Your task to perform on an android device: turn on translation in the chrome app Image 0: 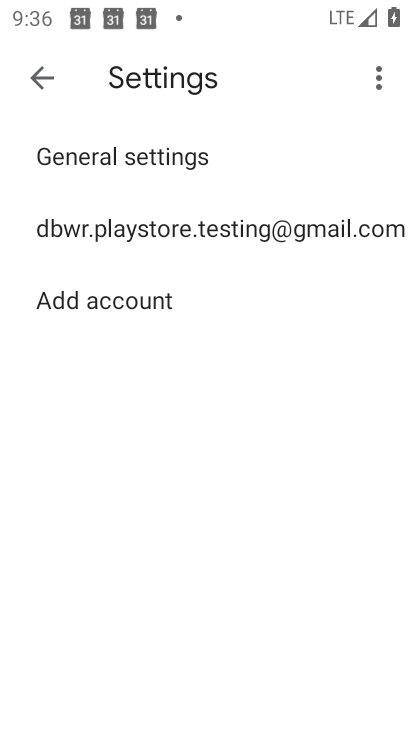
Step 0: press back button
Your task to perform on an android device: turn on translation in the chrome app Image 1: 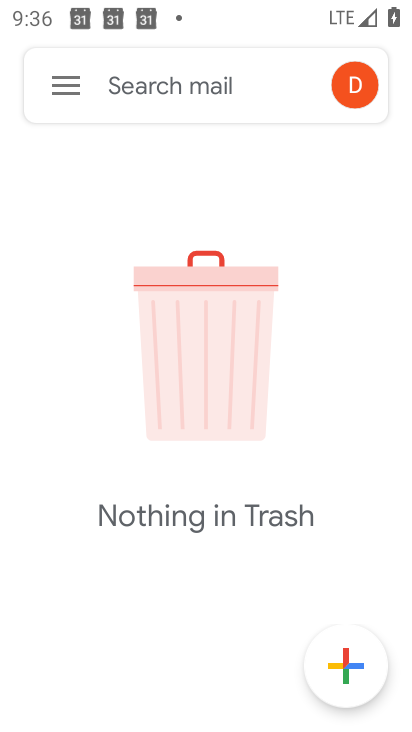
Step 1: press back button
Your task to perform on an android device: turn on translation in the chrome app Image 2: 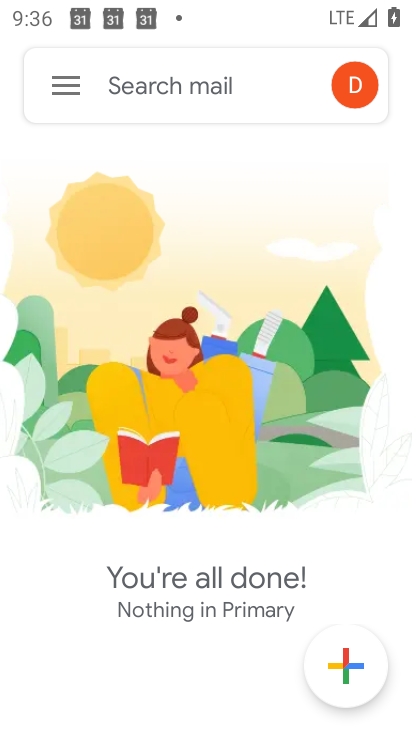
Step 2: press back button
Your task to perform on an android device: turn on translation in the chrome app Image 3: 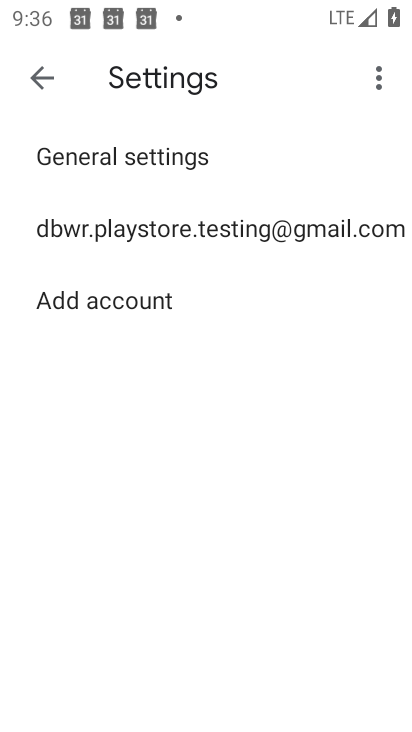
Step 3: press back button
Your task to perform on an android device: turn on translation in the chrome app Image 4: 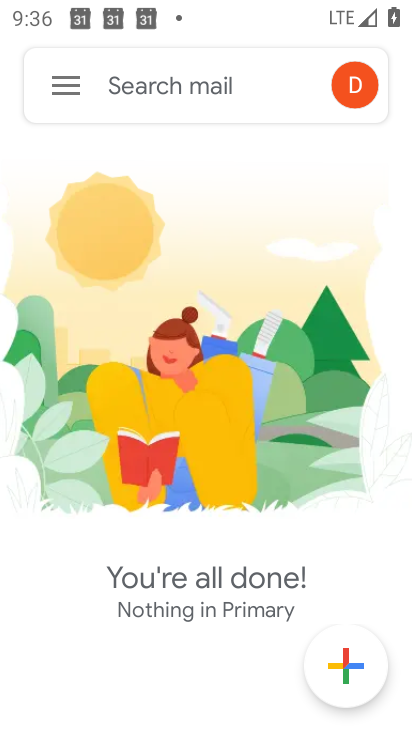
Step 4: press back button
Your task to perform on an android device: turn on translation in the chrome app Image 5: 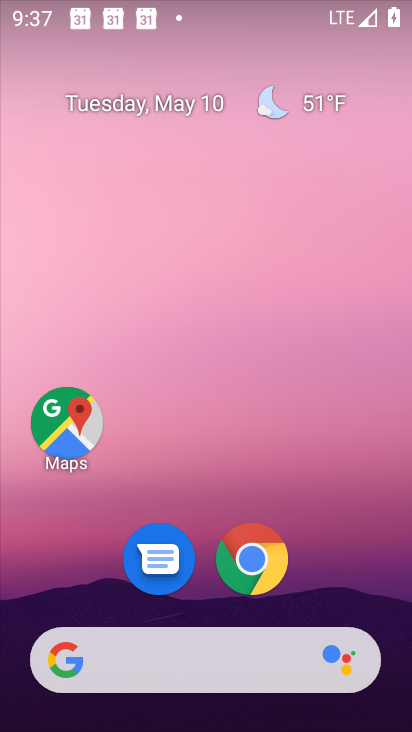
Step 5: click (253, 559)
Your task to perform on an android device: turn on translation in the chrome app Image 6: 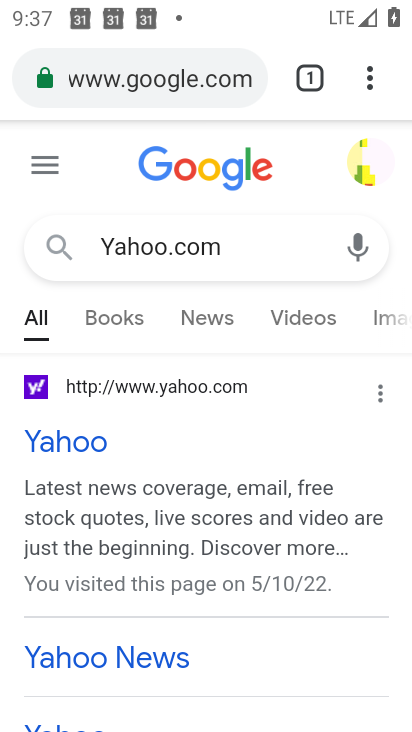
Step 6: click (370, 77)
Your task to perform on an android device: turn on translation in the chrome app Image 7: 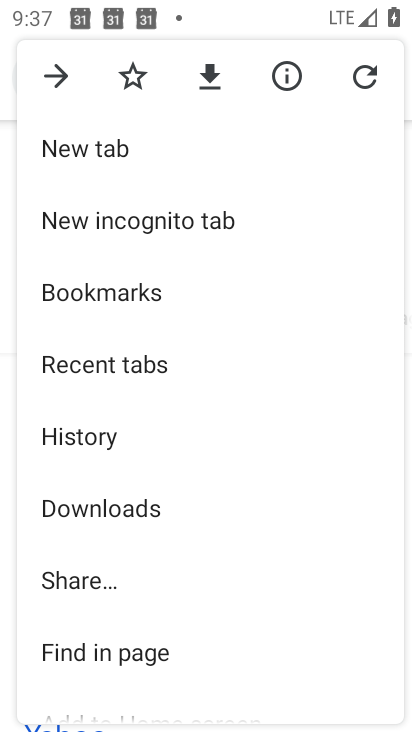
Step 7: drag from (167, 461) to (217, 334)
Your task to perform on an android device: turn on translation in the chrome app Image 8: 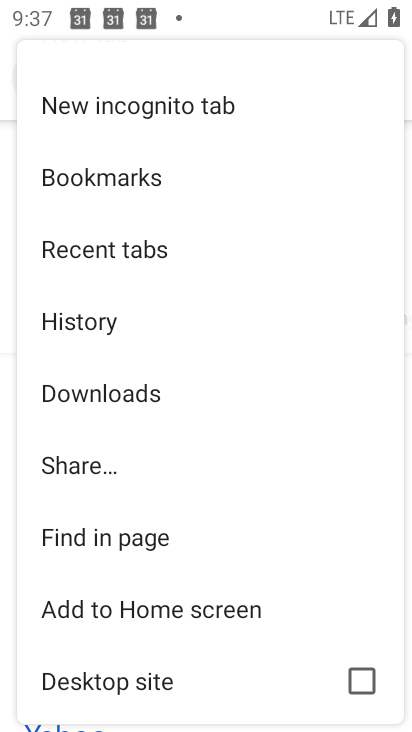
Step 8: drag from (190, 509) to (251, 380)
Your task to perform on an android device: turn on translation in the chrome app Image 9: 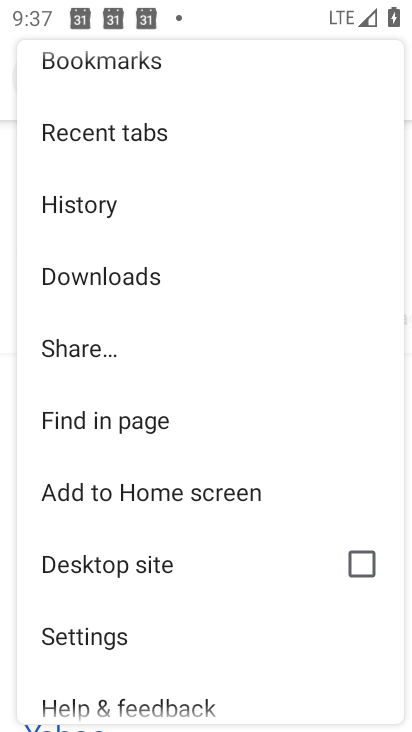
Step 9: drag from (192, 529) to (258, 385)
Your task to perform on an android device: turn on translation in the chrome app Image 10: 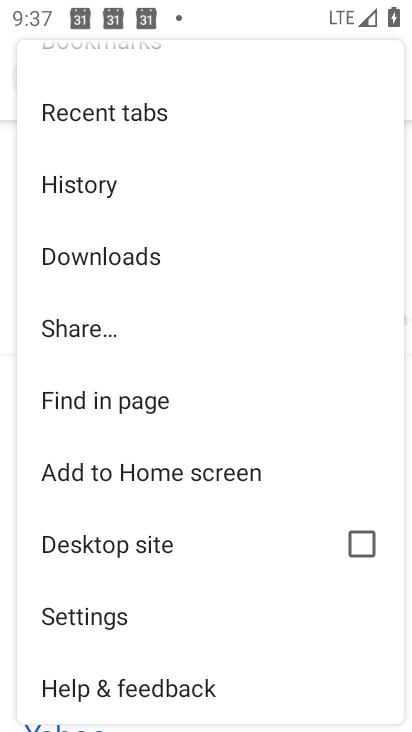
Step 10: click (122, 617)
Your task to perform on an android device: turn on translation in the chrome app Image 11: 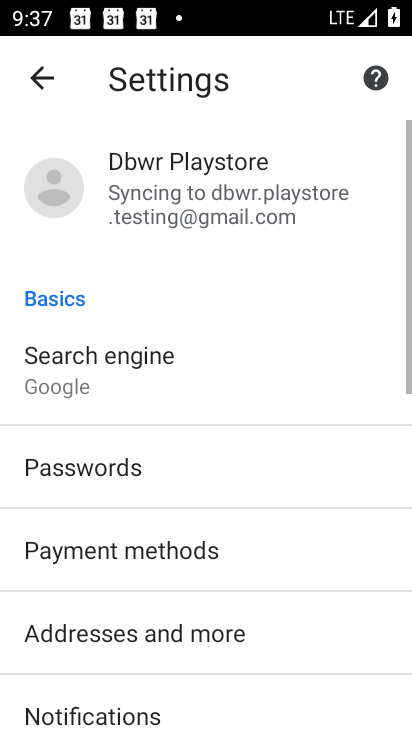
Step 11: drag from (201, 574) to (275, 431)
Your task to perform on an android device: turn on translation in the chrome app Image 12: 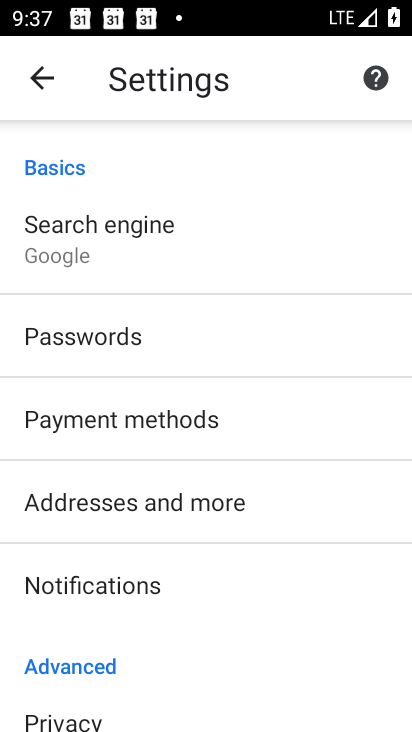
Step 12: drag from (214, 576) to (267, 444)
Your task to perform on an android device: turn on translation in the chrome app Image 13: 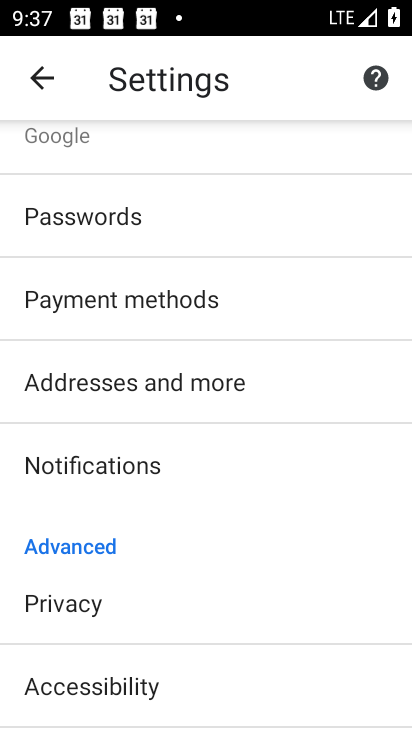
Step 13: drag from (195, 611) to (233, 489)
Your task to perform on an android device: turn on translation in the chrome app Image 14: 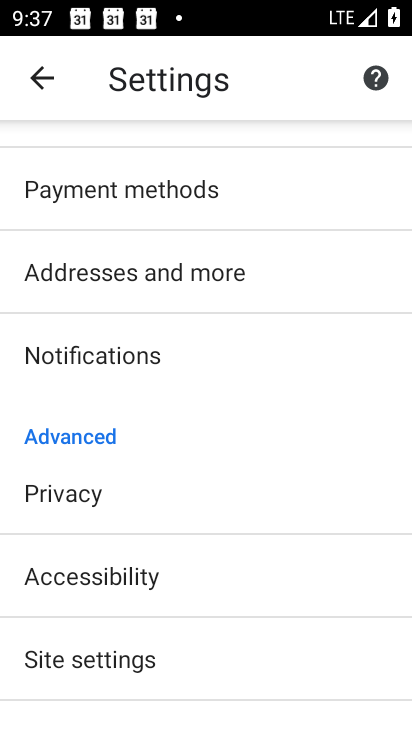
Step 14: drag from (182, 646) to (231, 519)
Your task to perform on an android device: turn on translation in the chrome app Image 15: 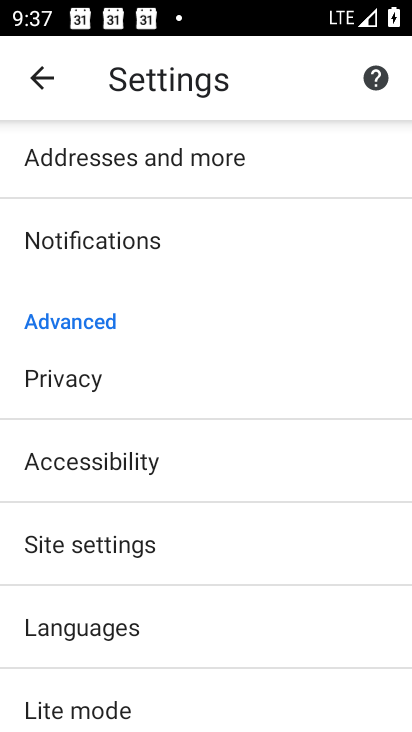
Step 15: click (88, 629)
Your task to perform on an android device: turn on translation in the chrome app Image 16: 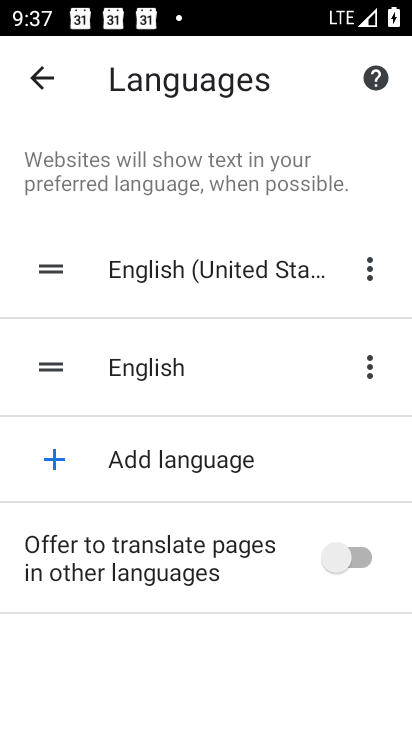
Step 16: click (343, 565)
Your task to perform on an android device: turn on translation in the chrome app Image 17: 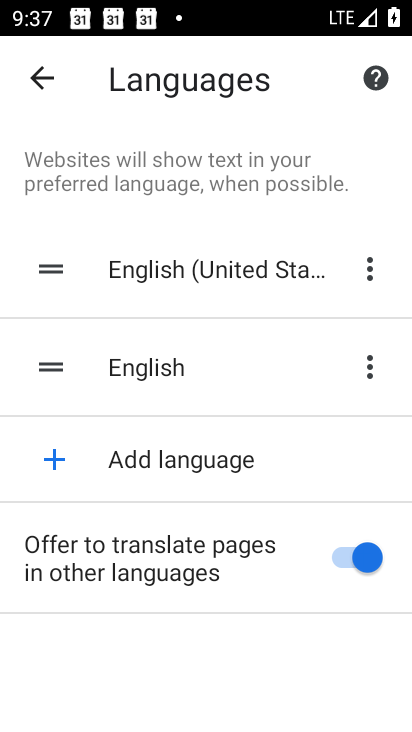
Step 17: task complete